Your task to perform on an android device: create a new album in the google photos Image 0: 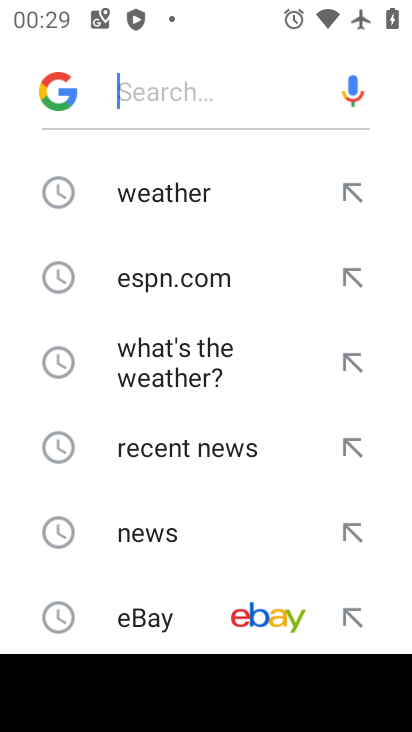
Step 0: press home button
Your task to perform on an android device: create a new album in the google photos Image 1: 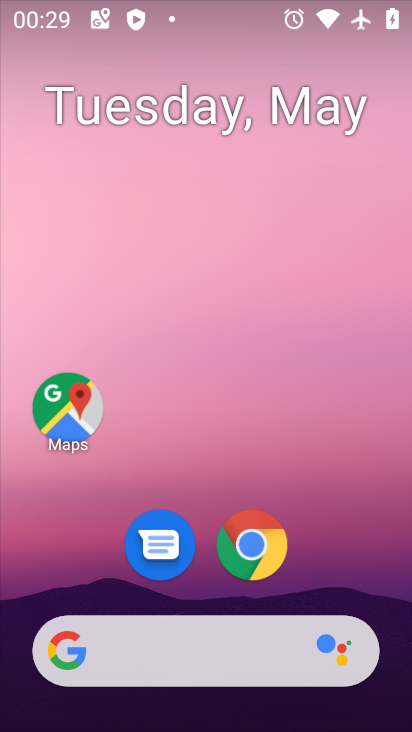
Step 1: drag from (345, 588) to (303, 29)
Your task to perform on an android device: create a new album in the google photos Image 2: 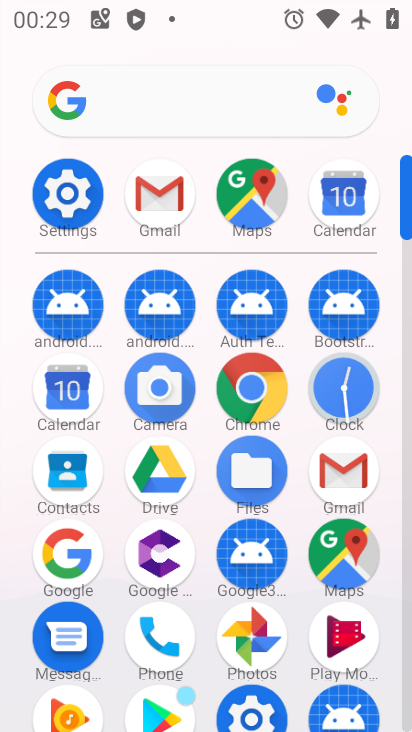
Step 2: click (224, 626)
Your task to perform on an android device: create a new album in the google photos Image 3: 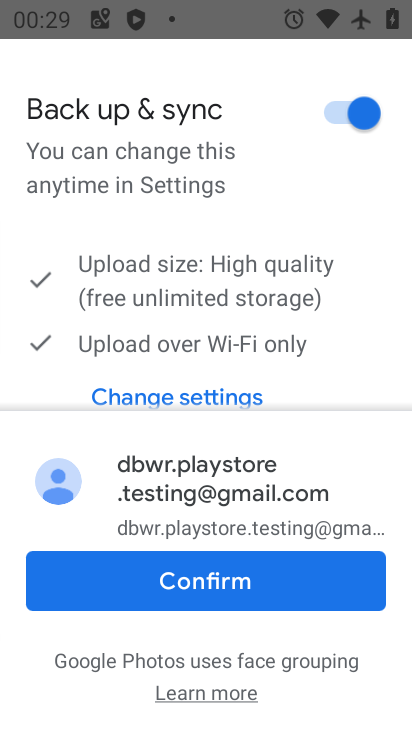
Step 3: click (229, 591)
Your task to perform on an android device: create a new album in the google photos Image 4: 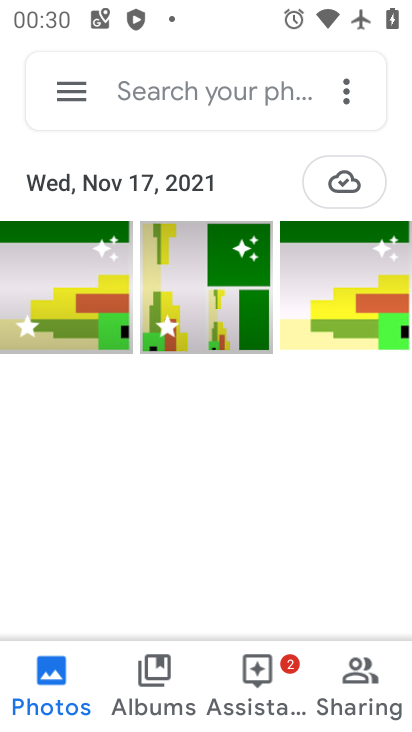
Step 4: click (157, 712)
Your task to perform on an android device: create a new album in the google photos Image 5: 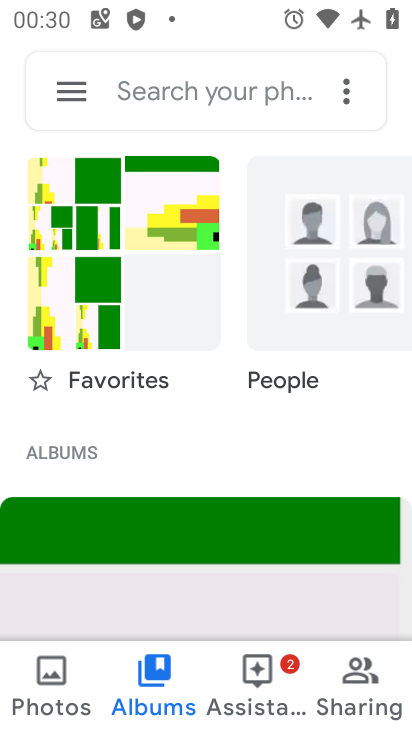
Step 5: click (344, 87)
Your task to perform on an android device: create a new album in the google photos Image 6: 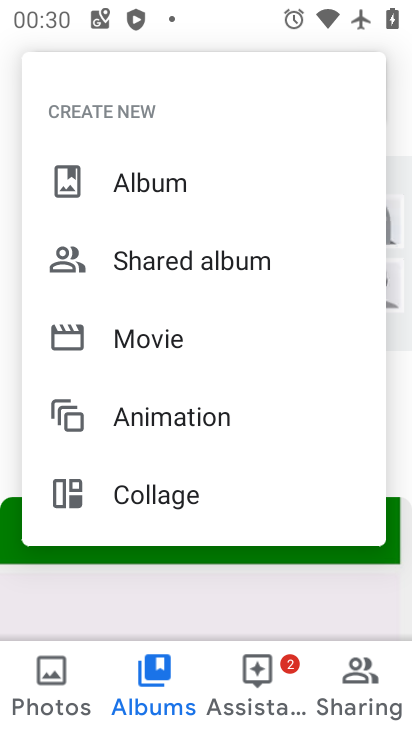
Step 6: click (178, 182)
Your task to perform on an android device: create a new album in the google photos Image 7: 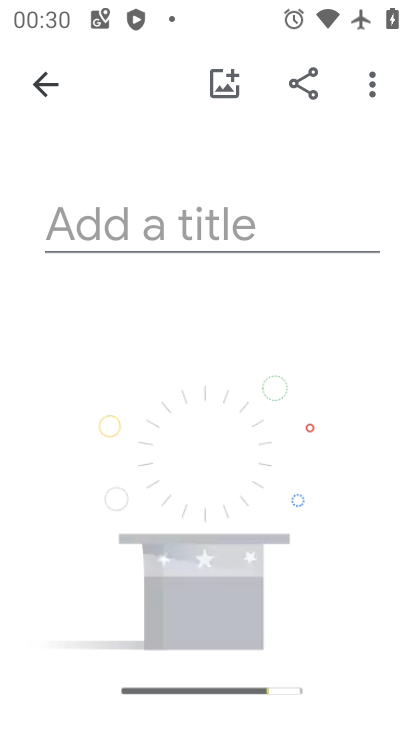
Step 7: click (193, 229)
Your task to perform on an android device: create a new album in the google photos Image 8: 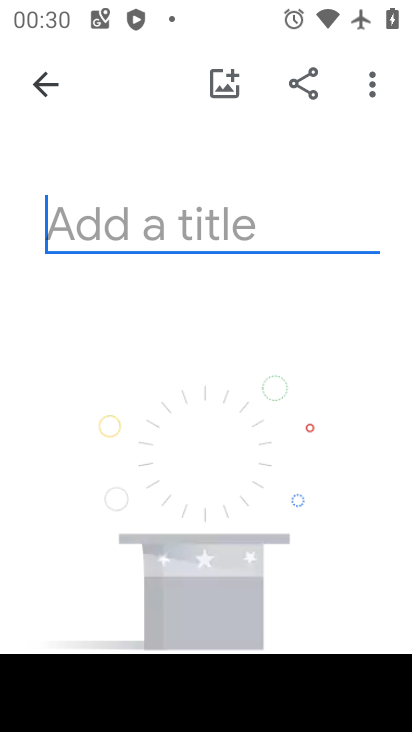
Step 8: type "asdfgvcxz"
Your task to perform on an android device: create a new album in the google photos Image 9: 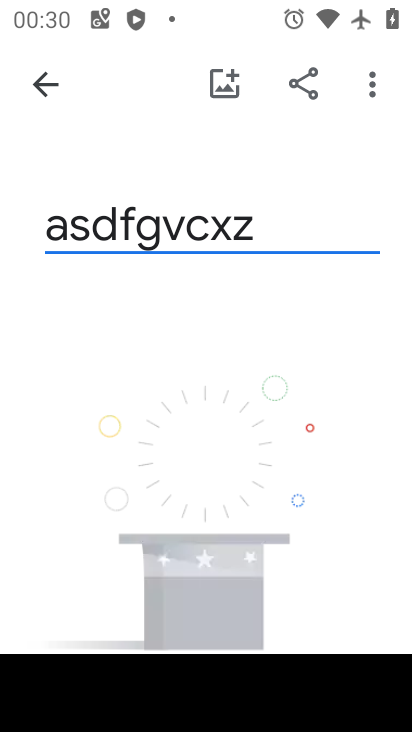
Step 9: click (214, 81)
Your task to perform on an android device: create a new album in the google photos Image 10: 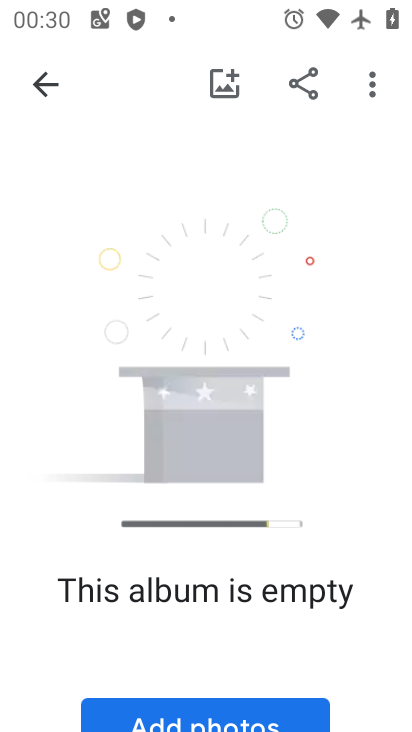
Step 10: click (233, 720)
Your task to perform on an android device: create a new album in the google photos Image 11: 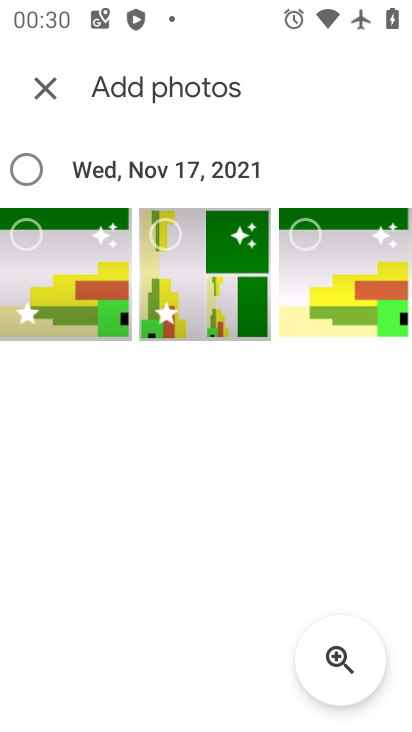
Step 11: click (66, 298)
Your task to perform on an android device: create a new album in the google photos Image 12: 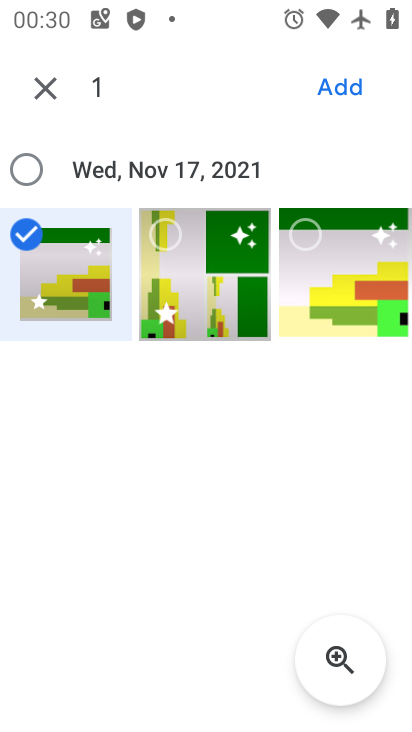
Step 12: click (344, 93)
Your task to perform on an android device: create a new album in the google photos Image 13: 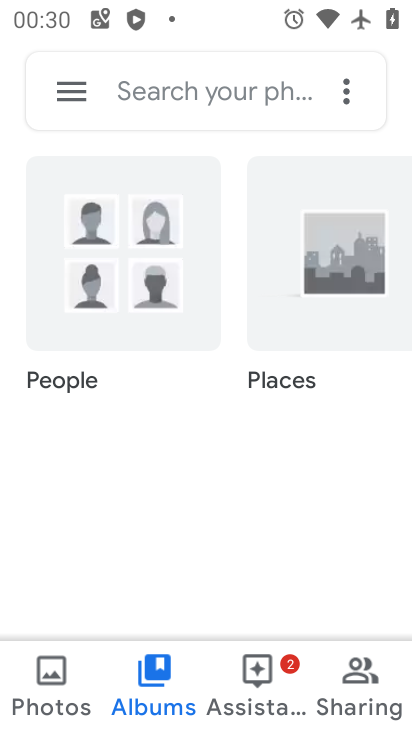
Step 13: task complete